Your task to perform on an android device: Open settings Image 0: 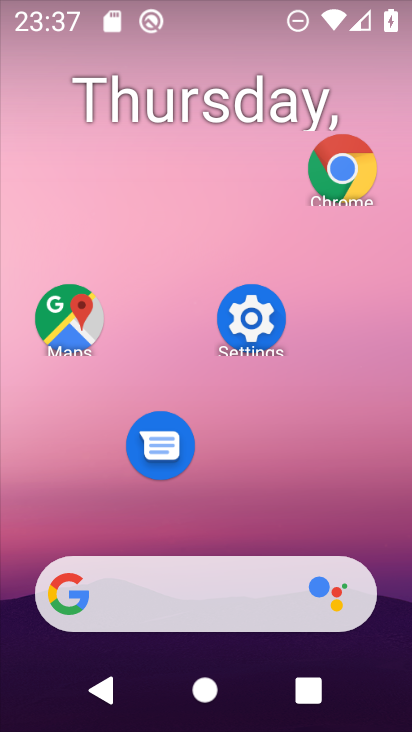
Step 0: drag from (205, 533) to (247, 9)
Your task to perform on an android device: Open settings Image 1: 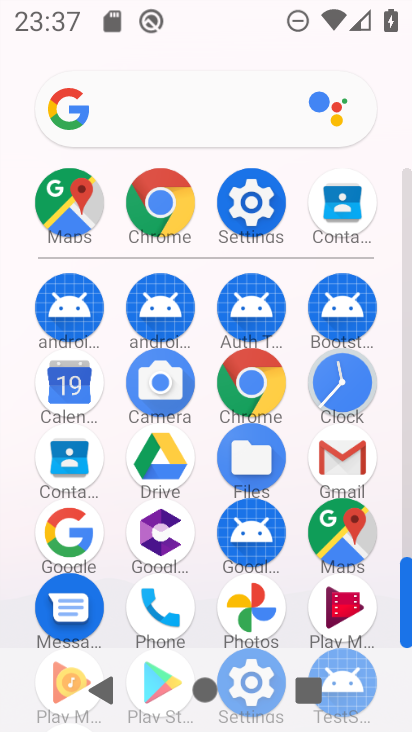
Step 1: drag from (203, 538) to (210, 247)
Your task to perform on an android device: Open settings Image 2: 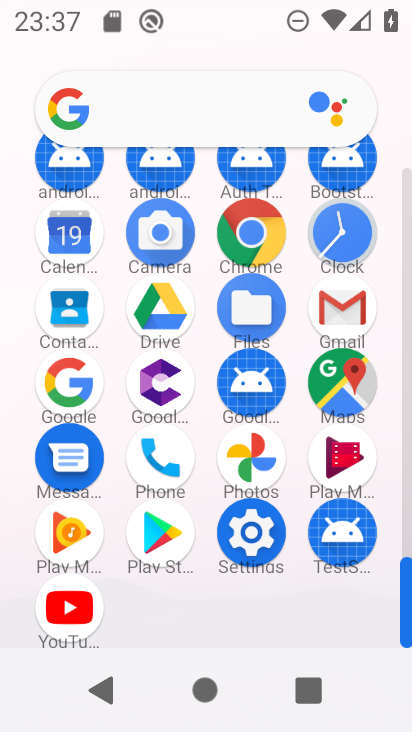
Step 2: click (254, 531)
Your task to perform on an android device: Open settings Image 3: 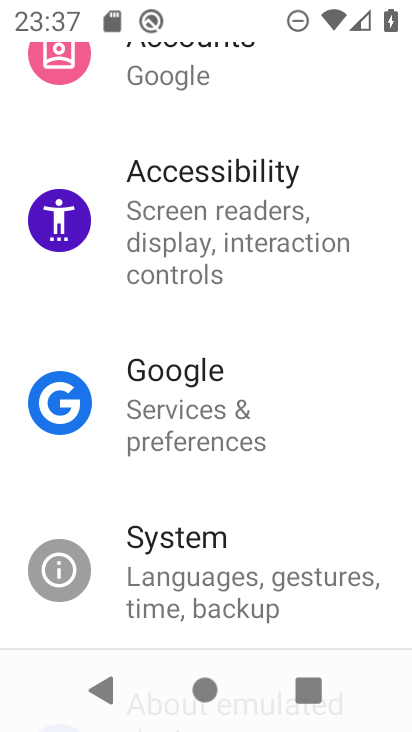
Step 3: task complete